Your task to perform on an android device: Search for sushi restaurants on Maps Image 0: 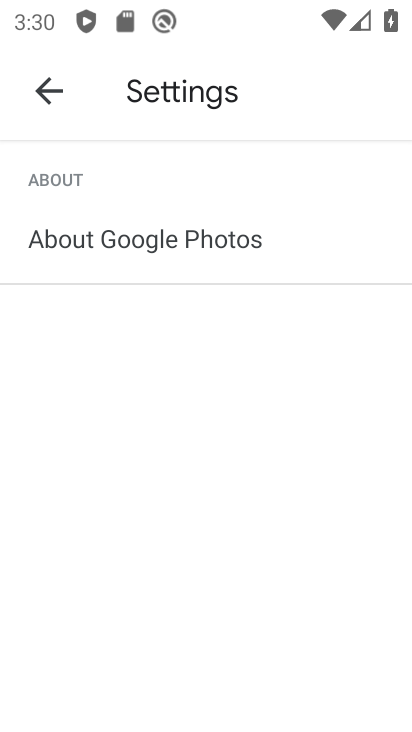
Step 0: press home button
Your task to perform on an android device: Search for sushi restaurants on Maps Image 1: 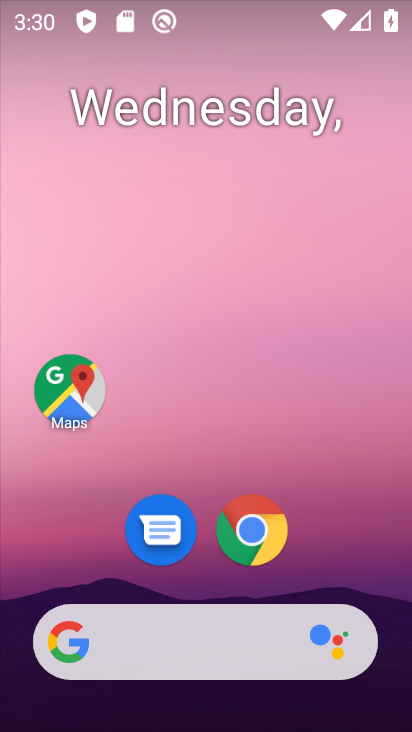
Step 1: drag from (99, 508) to (137, 134)
Your task to perform on an android device: Search for sushi restaurants on Maps Image 2: 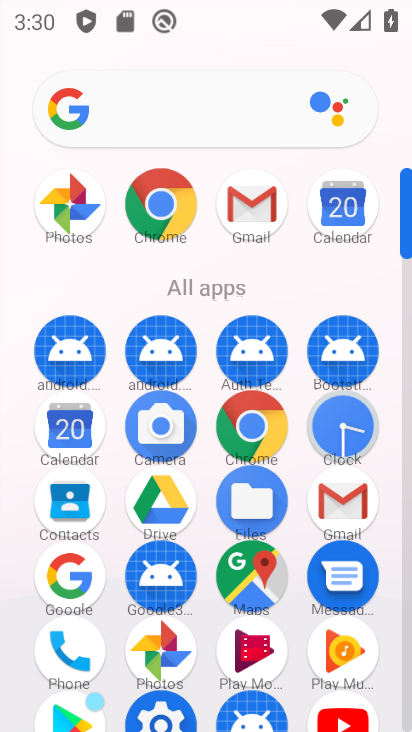
Step 2: click (265, 574)
Your task to perform on an android device: Search for sushi restaurants on Maps Image 3: 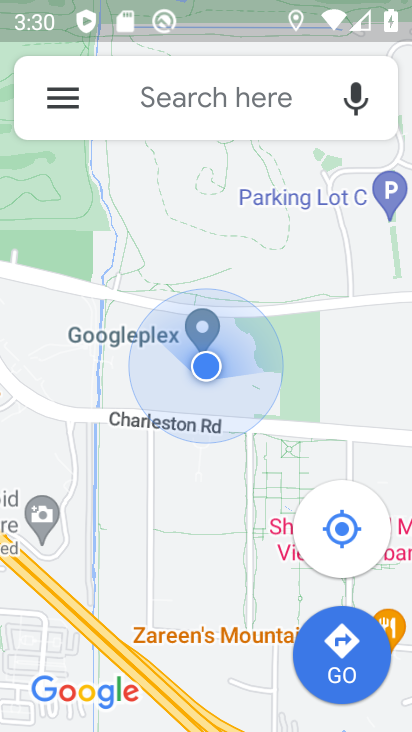
Step 3: click (146, 109)
Your task to perform on an android device: Search for sushi restaurants on Maps Image 4: 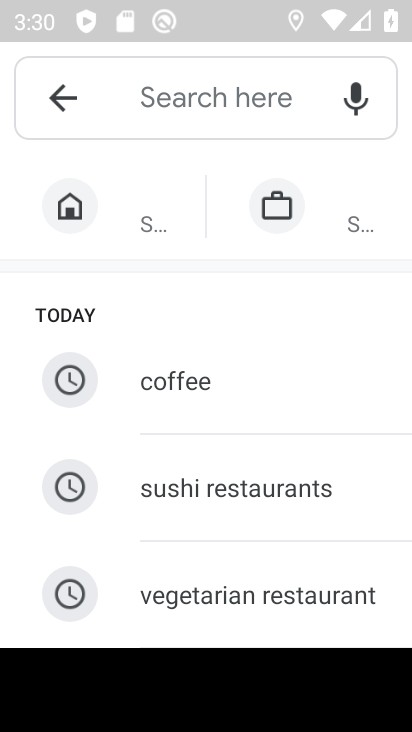
Step 4: type "sushi restaurants"
Your task to perform on an android device: Search for sushi restaurants on Maps Image 5: 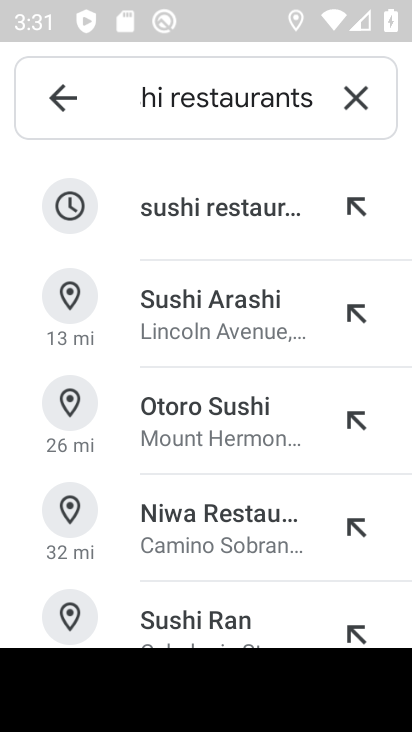
Step 5: click (149, 197)
Your task to perform on an android device: Search for sushi restaurants on Maps Image 6: 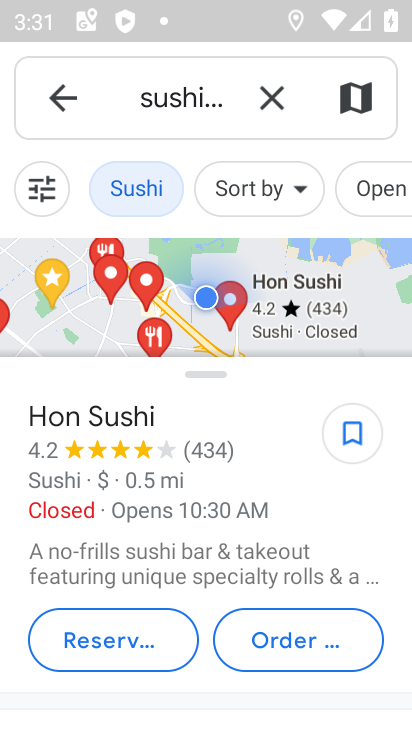
Step 6: task complete